Your task to perform on an android device: toggle pop-ups in chrome Image 0: 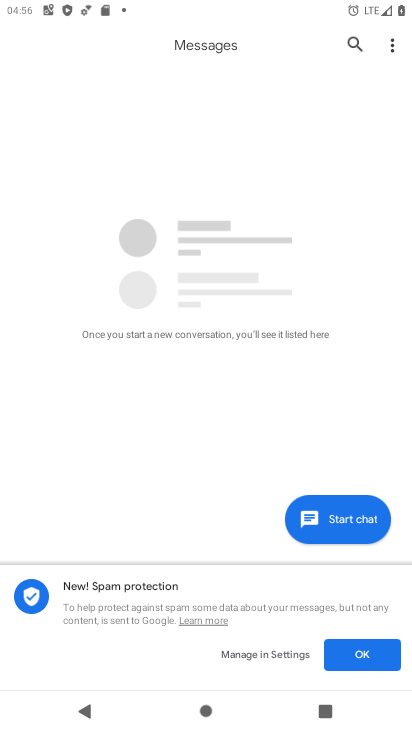
Step 0: press back button
Your task to perform on an android device: toggle pop-ups in chrome Image 1: 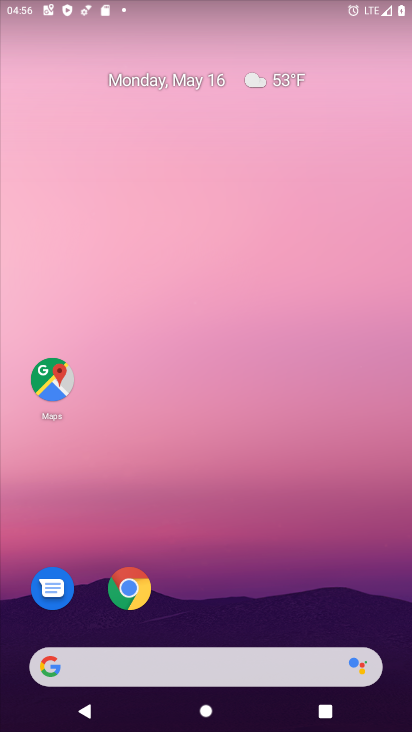
Step 1: drag from (190, 574) to (145, 31)
Your task to perform on an android device: toggle pop-ups in chrome Image 2: 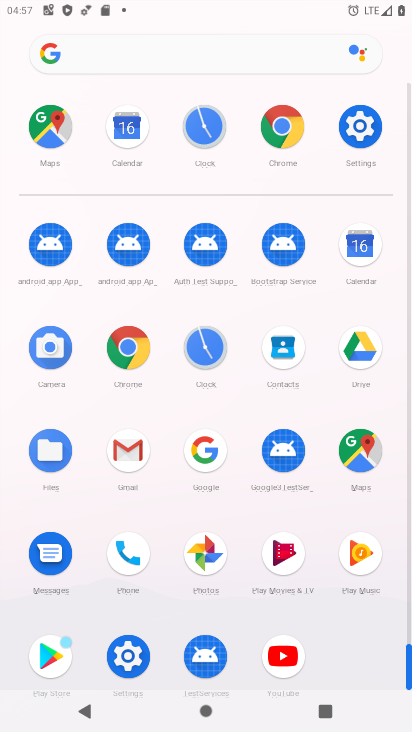
Step 2: drag from (6, 495) to (15, 229)
Your task to perform on an android device: toggle pop-ups in chrome Image 3: 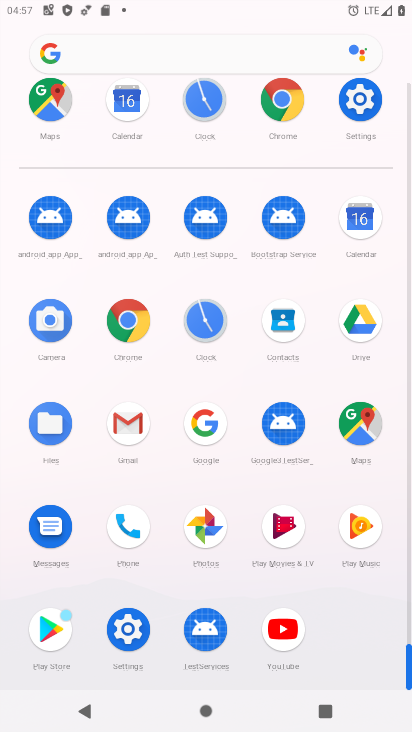
Step 3: click (130, 321)
Your task to perform on an android device: toggle pop-ups in chrome Image 4: 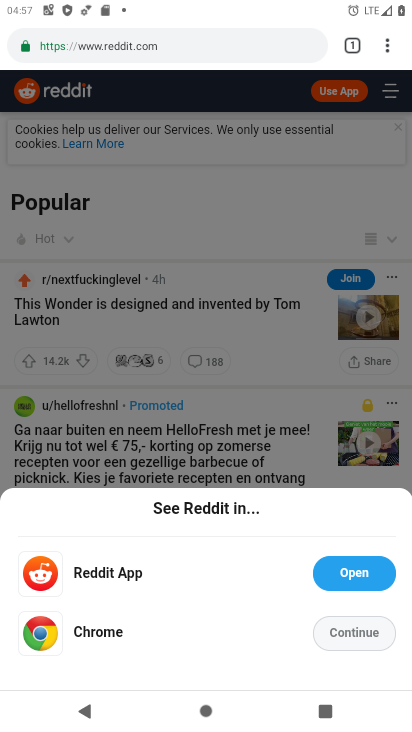
Step 4: drag from (381, 47) to (212, 542)
Your task to perform on an android device: toggle pop-ups in chrome Image 5: 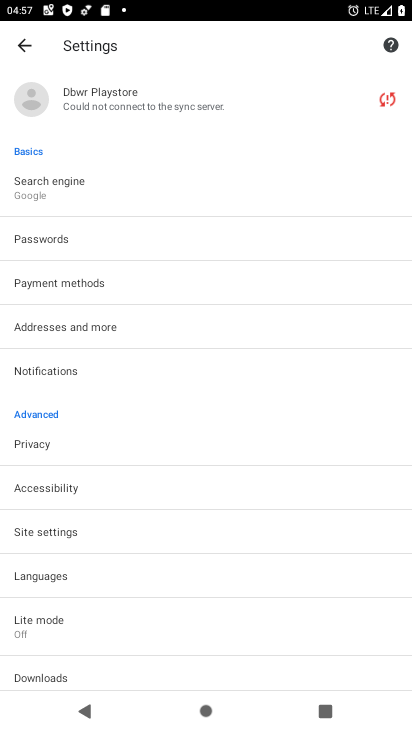
Step 5: click (114, 528)
Your task to perform on an android device: toggle pop-ups in chrome Image 6: 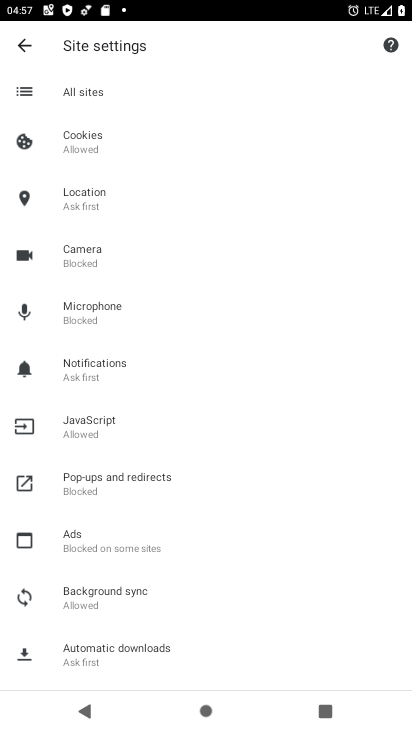
Step 6: click (143, 490)
Your task to perform on an android device: toggle pop-ups in chrome Image 7: 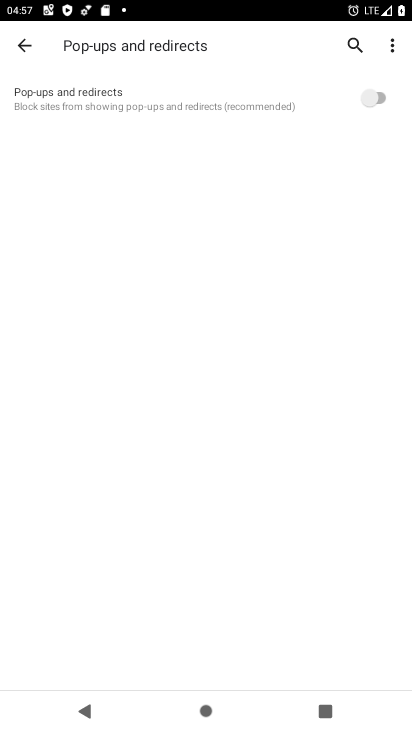
Step 7: click (364, 97)
Your task to perform on an android device: toggle pop-ups in chrome Image 8: 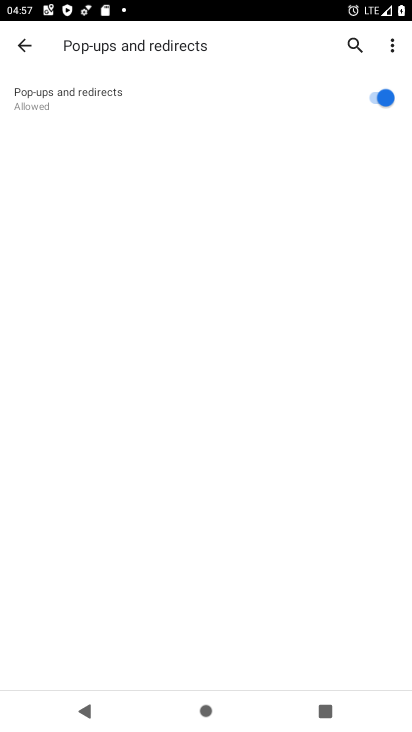
Step 8: task complete